Your task to perform on an android device: Open a new incognito window in Chrome Image 0: 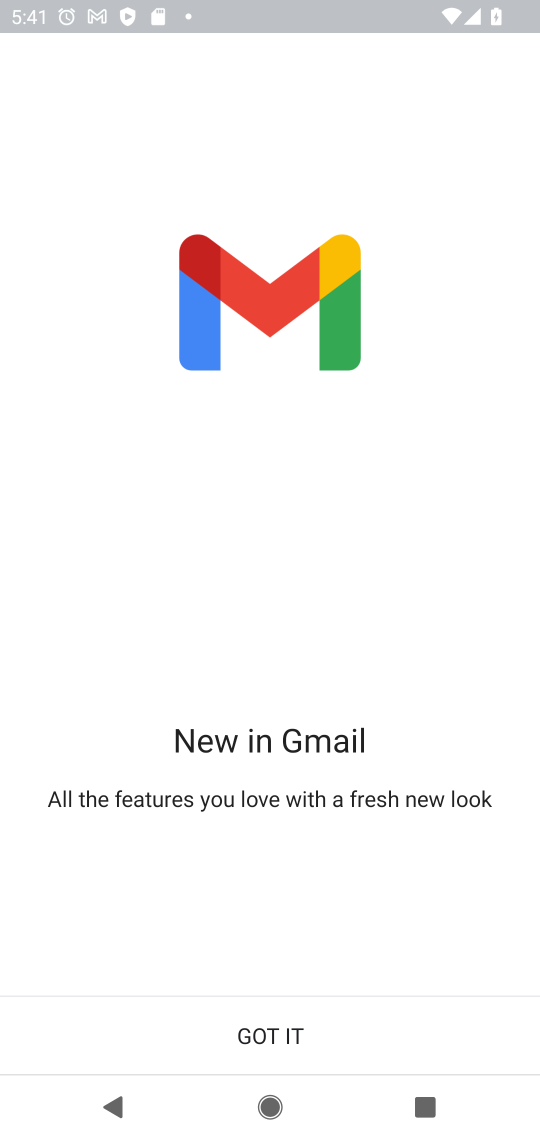
Step 0: press home button
Your task to perform on an android device: Open a new incognito window in Chrome Image 1: 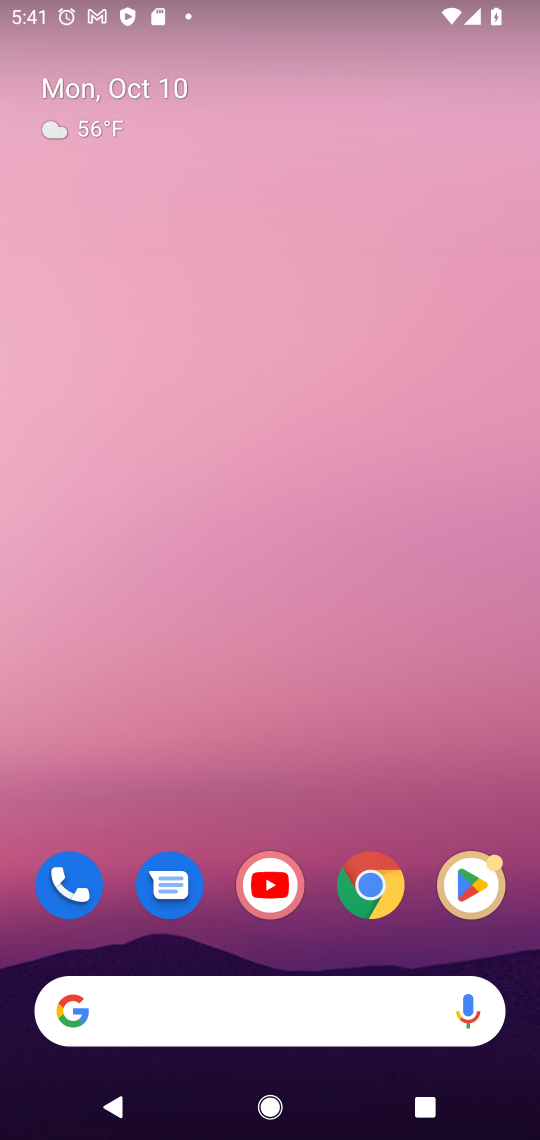
Step 1: click (372, 874)
Your task to perform on an android device: Open a new incognito window in Chrome Image 2: 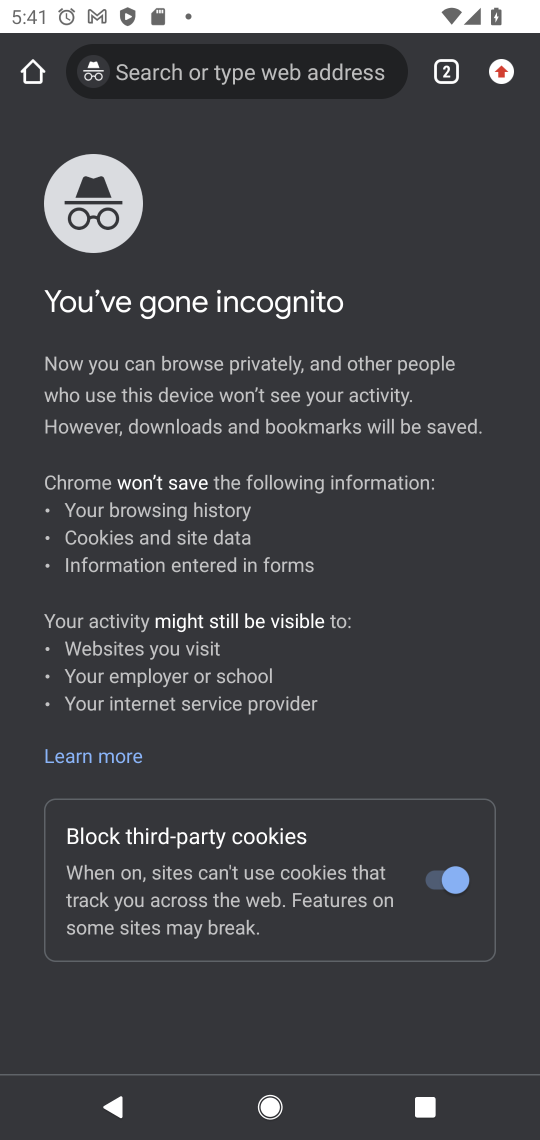
Step 2: click (433, 70)
Your task to perform on an android device: Open a new incognito window in Chrome Image 3: 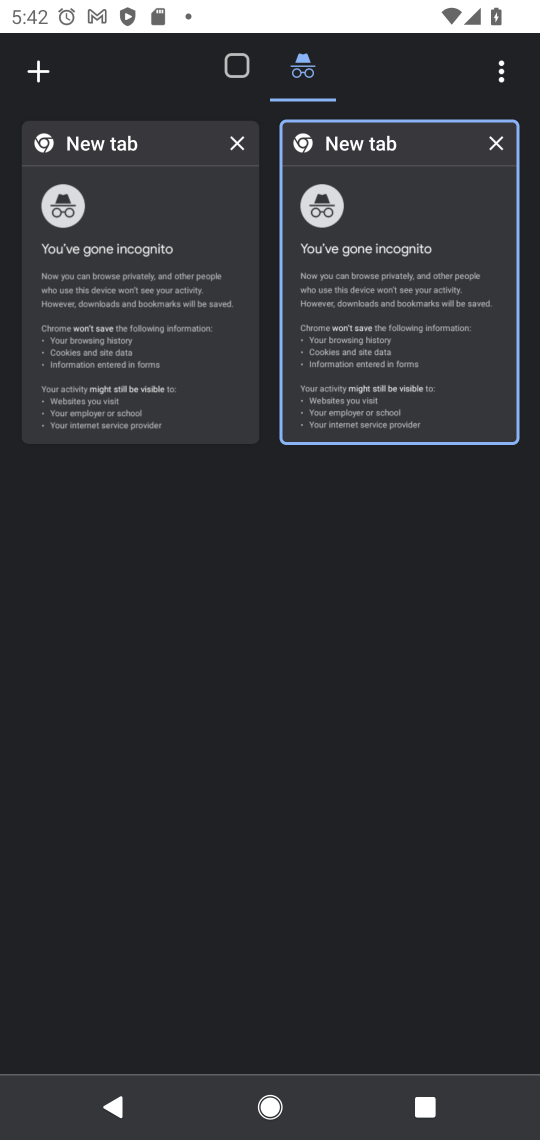
Step 3: click (43, 78)
Your task to perform on an android device: Open a new incognito window in Chrome Image 4: 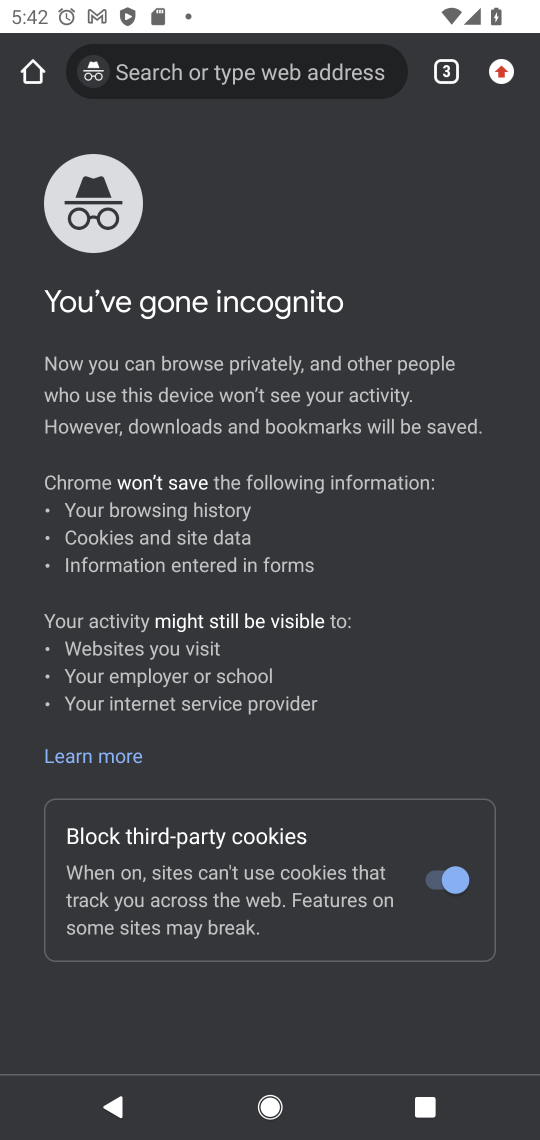
Step 4: task complete